Your task to perform on an android device: delete location history Image 0: 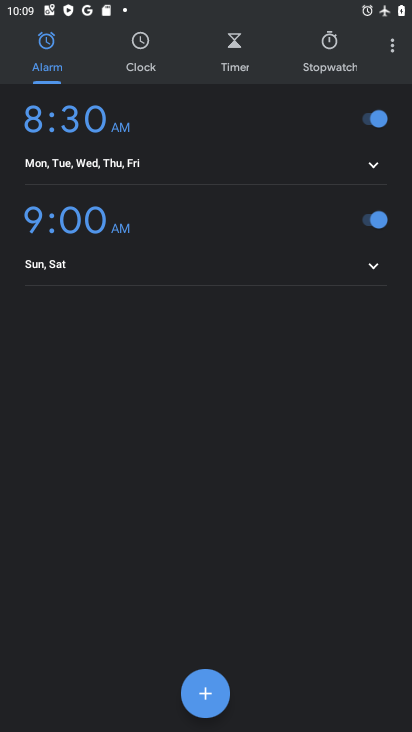
Step 0: press home button
Your task to perform on an android device: delete location history Image 1: 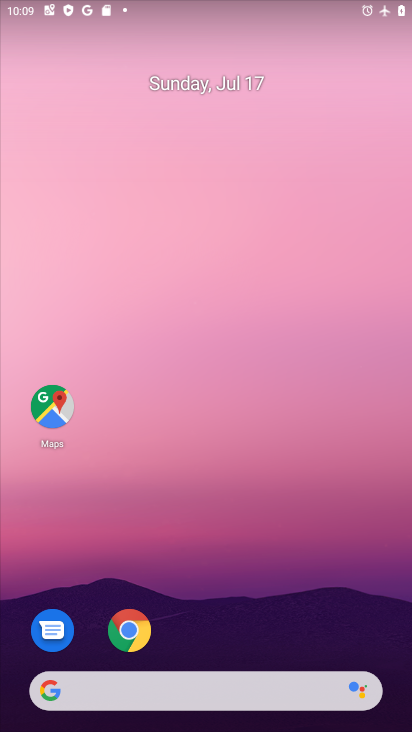
Step 1: click (50, 396)
Your task to perform on an android device: delete location history Image 2: 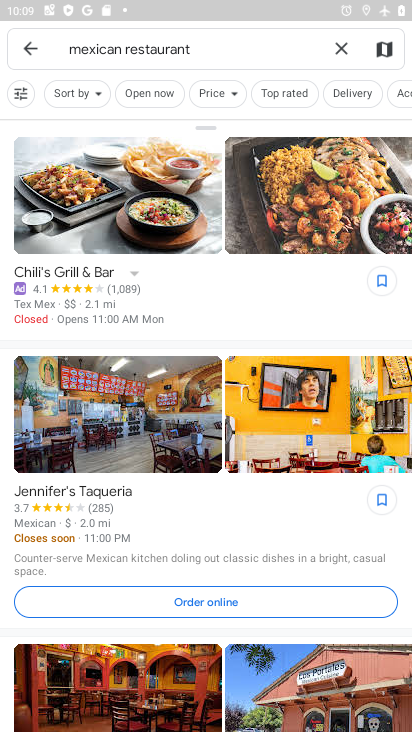
Step 2: click (28, 40)
Your task to perform on an android device: delete location history Image 3: 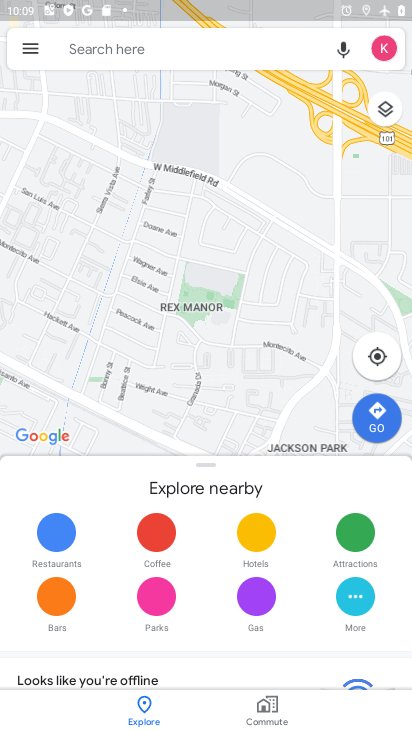
Step 3: click (26, 47)
Your task to perform on an android device: delete location history Image 4: 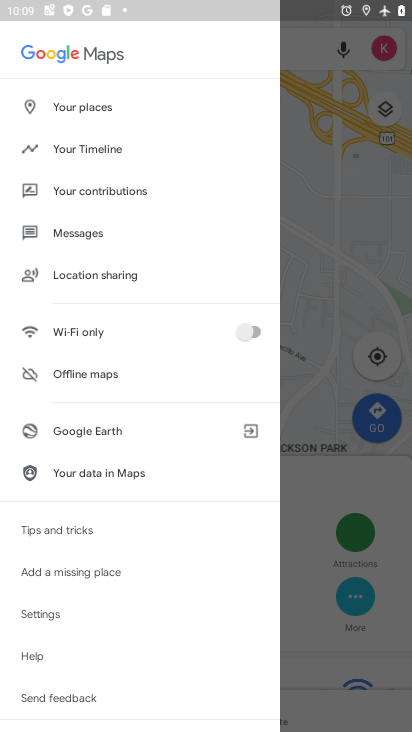
Step 4: click (88, 148)
Your task to perform on an android device: delete location history Image 5: 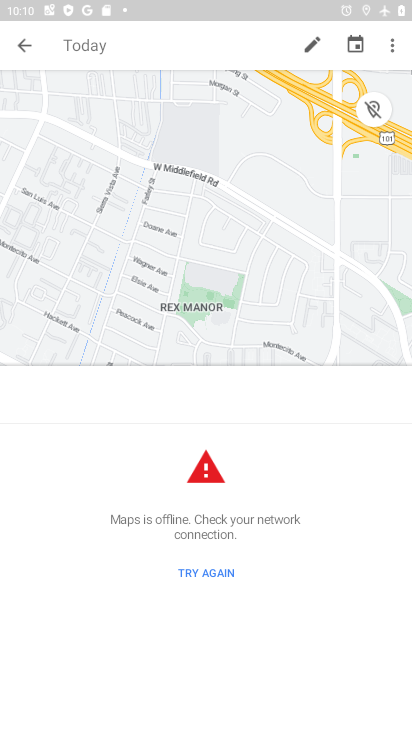
Step 5: click (197, 572)
Your task to perform on an android device: delete location history Image 6: 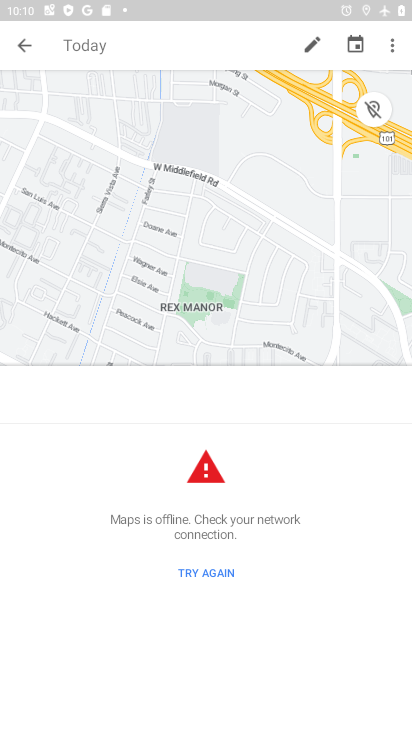
Step 6: task complete